Your task to perform on an android device: Go to Wikipedia Image 0: 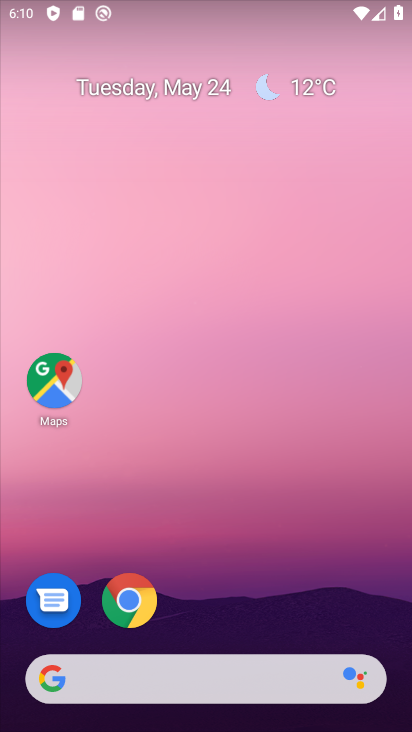
Step 0: drag from (281, 690) to (320, 123)
Your task to perform on an android device: Go to Wikipedia Image 1: 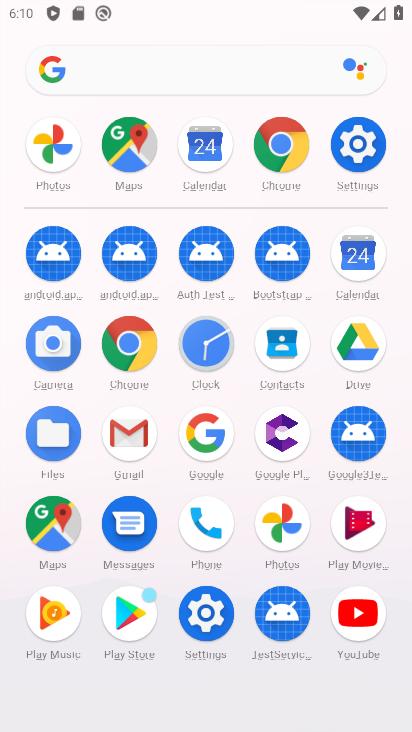
Step 1: click (108, 327)
Your task to perform on an android device: Go to Wikipedia Image 2: 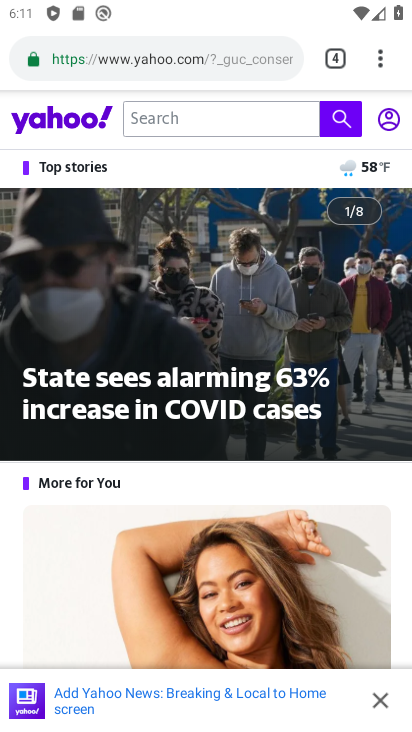
Step 2: drag from (376, 61) to (148, 119)
Your task to perform on an android device: Go to Wikipedia Image 3: 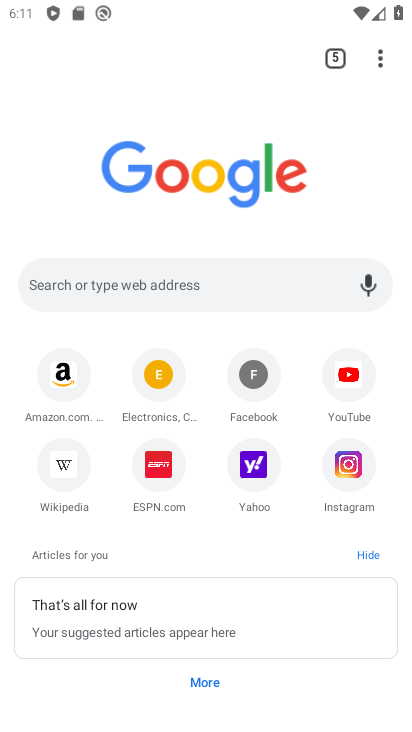
Step 3: click (77, 472)
Your task to perform on an android device: Go to Wikipedia Image 4: 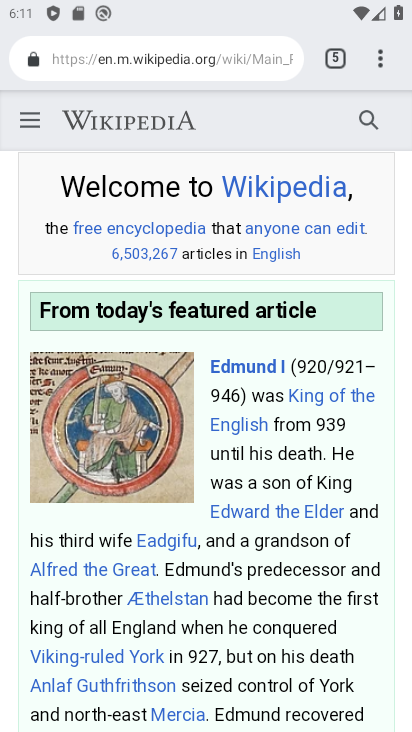
Step 4: task complete